Your task to perform on an android device: Open sound settings Image 0: 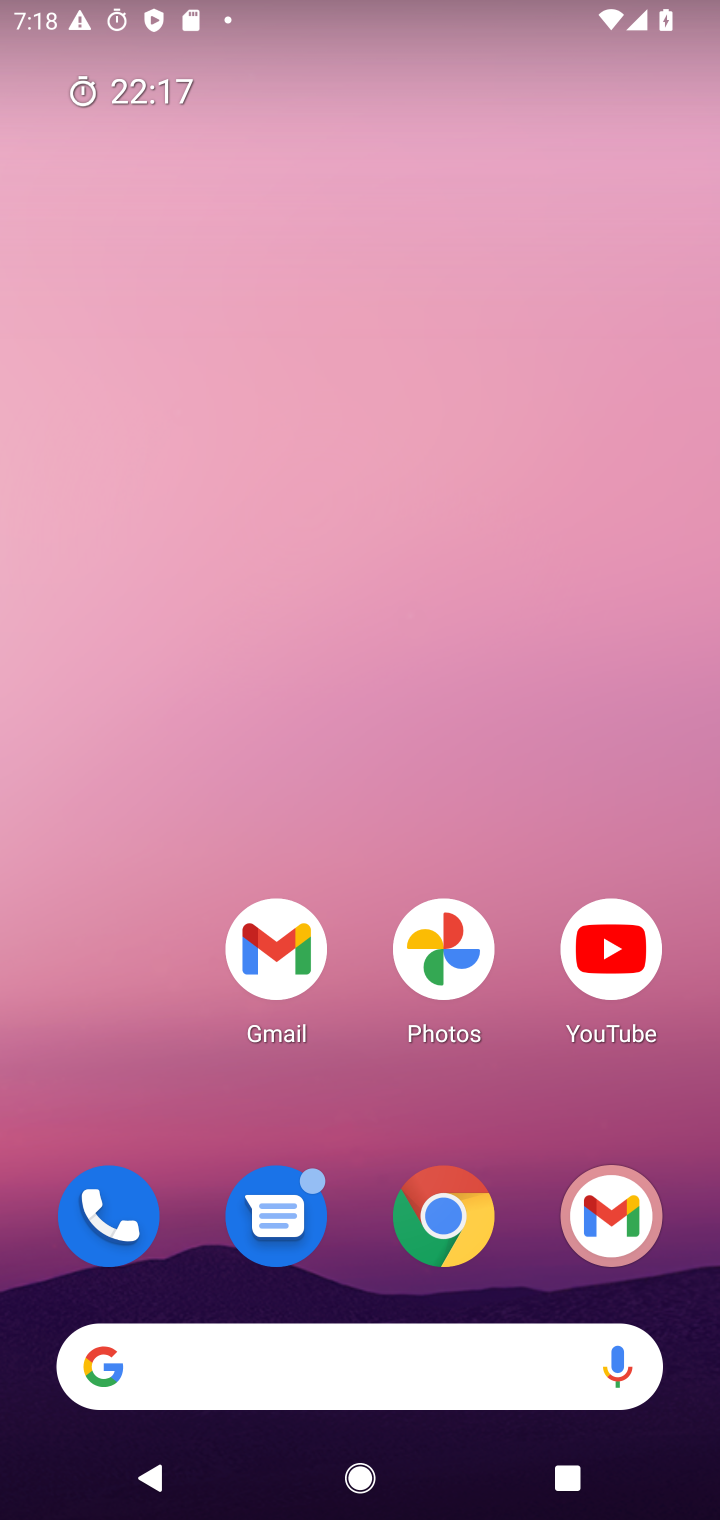
Step 0: drag from (358, 829) to (496, 130)
Your task to perform on an android device: Open sound settings Image 1: 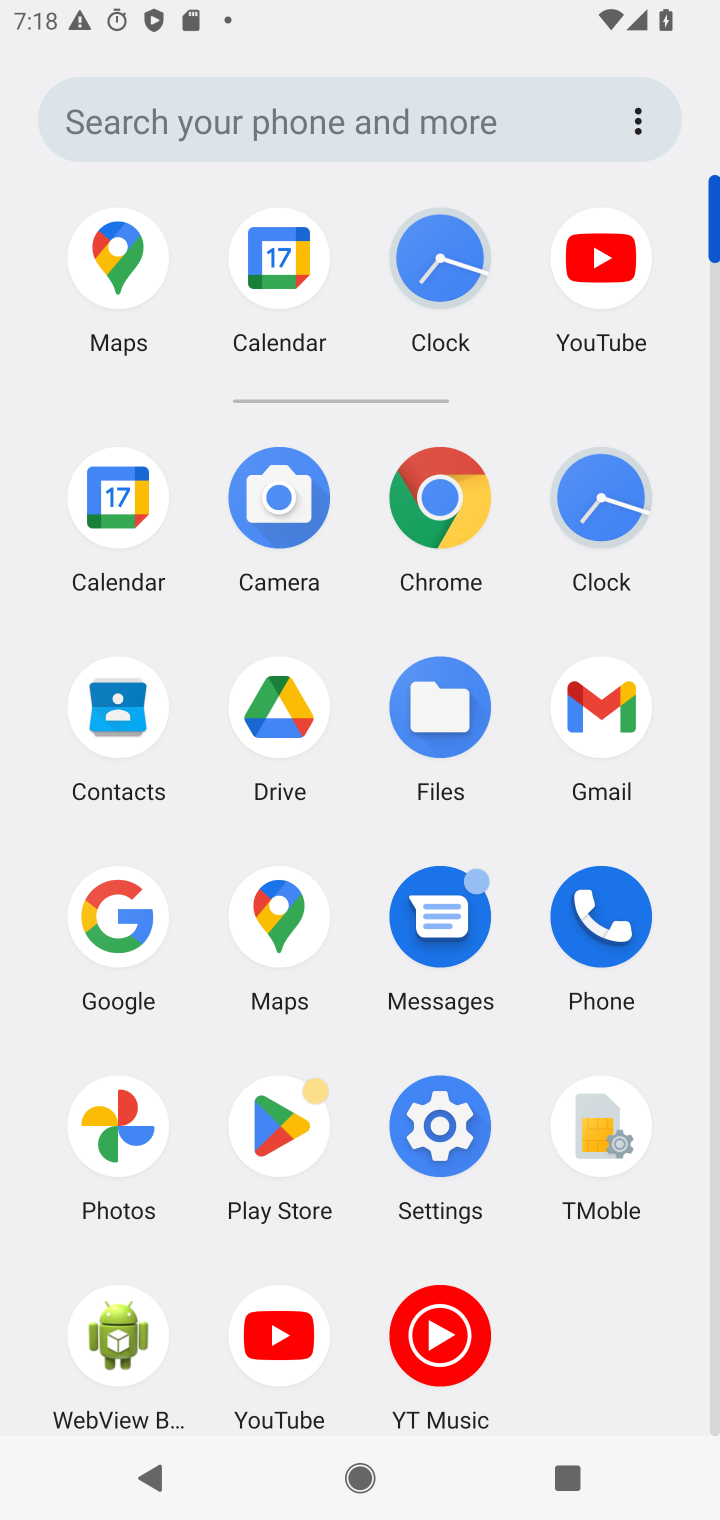
Step 1: click (437, 1122)
Your task to perform on an android device: Open sound settings Image 2: 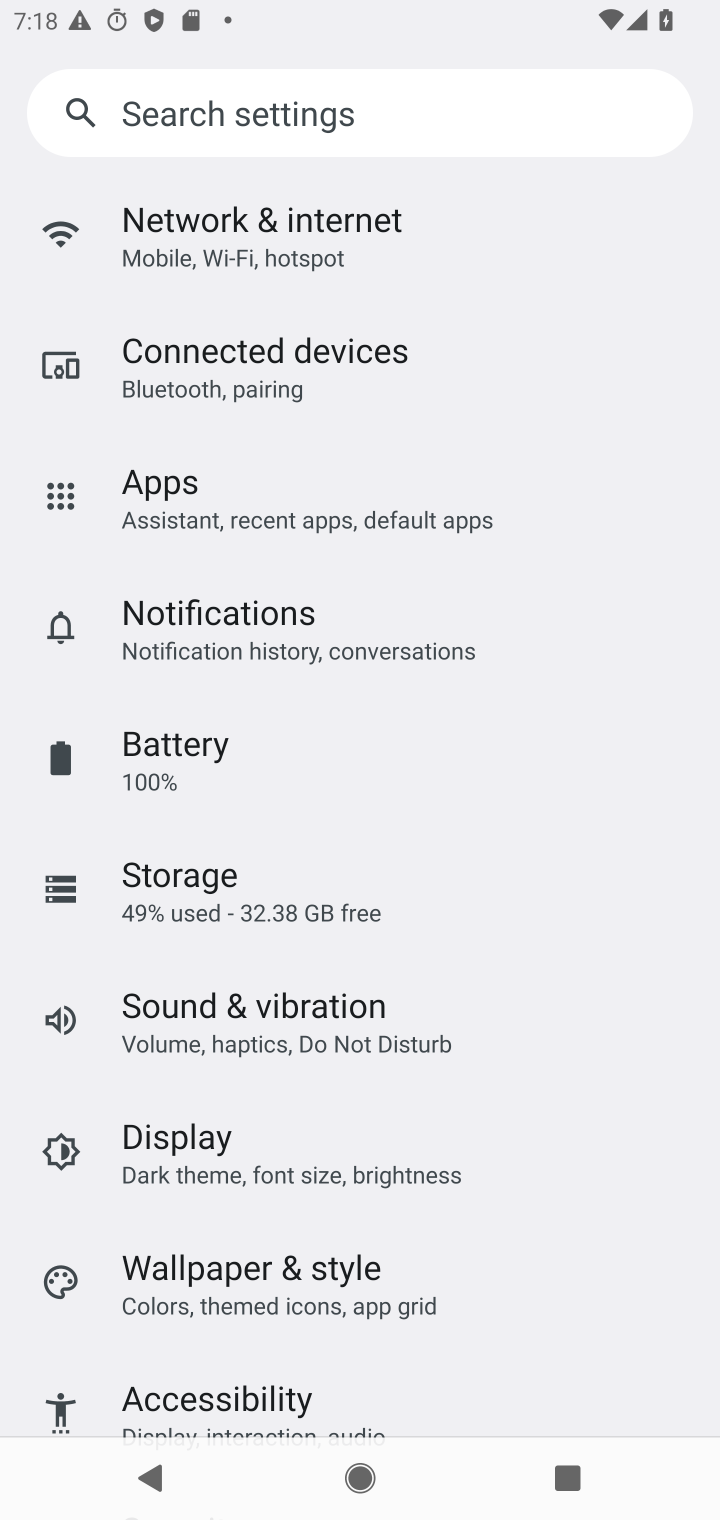
Step 2: drag from (307, 1107) to (417, 233)
Your task to perform on an android device: Open sound settings Image 3: 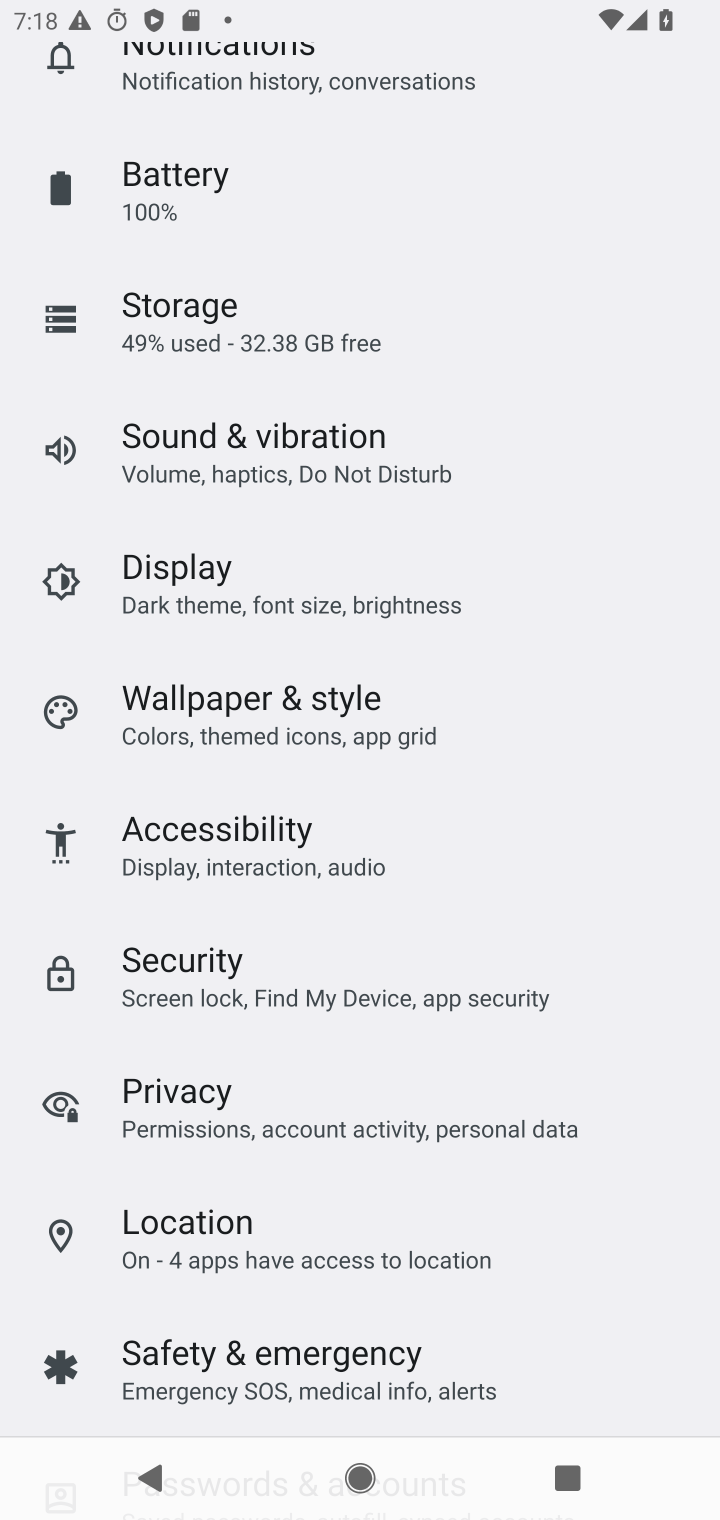
Step 3: drag from (330, 1078) to (251, 1120)
Your task to perform on an android device: Open sound settings Image 4: 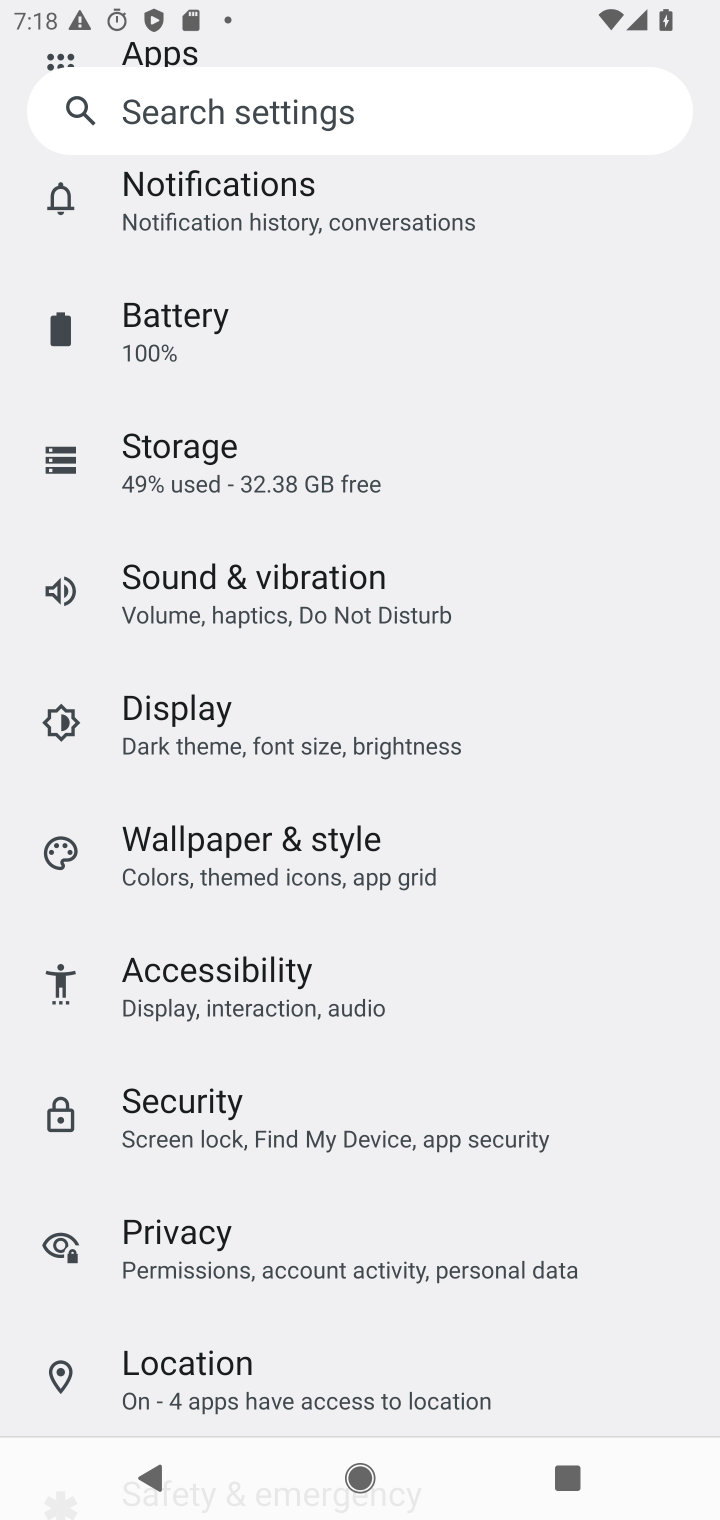
Step 4: click (211, 589)
Your task to perform on an android device: Open sound settings Image 5: 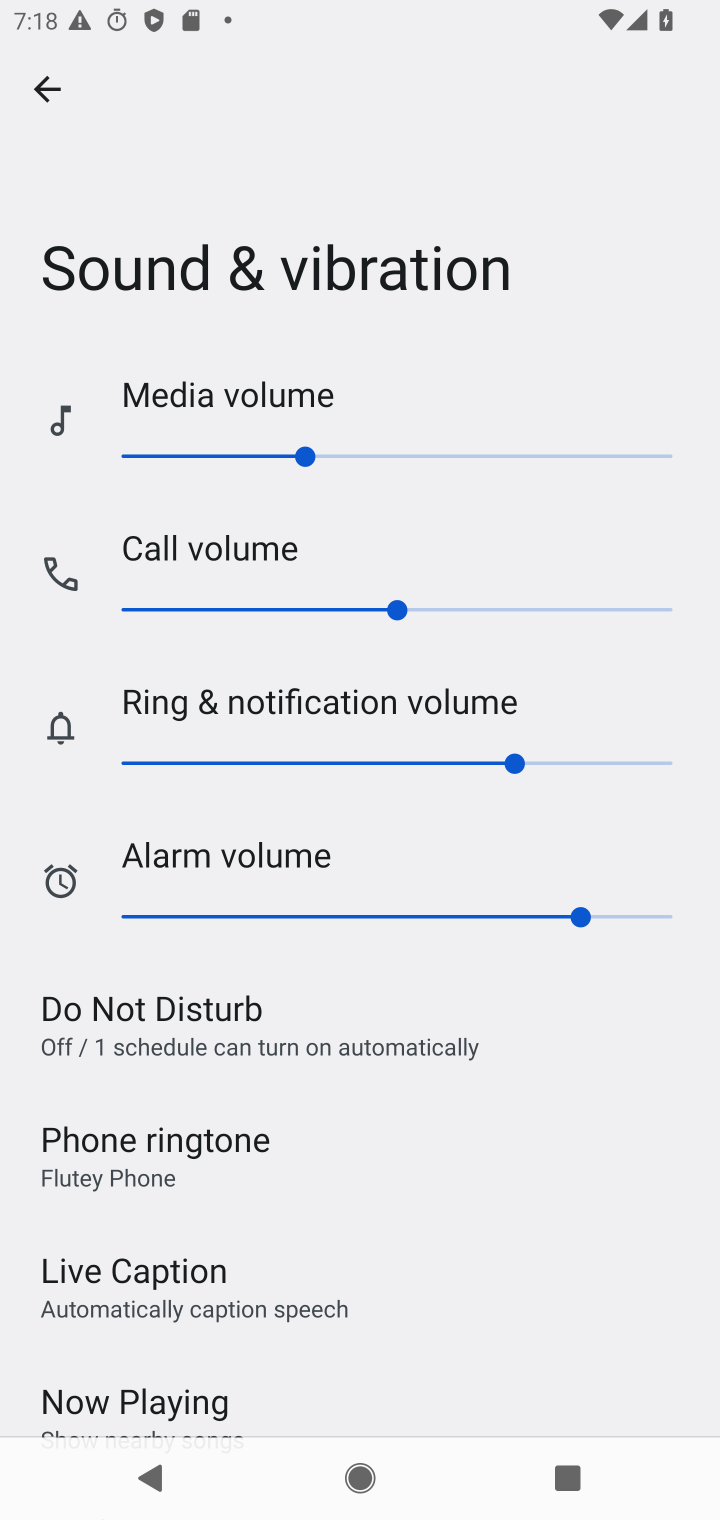
Step 5: task complete